Your task to perform on an android device: toggle data saver in the chrome app Image 0: 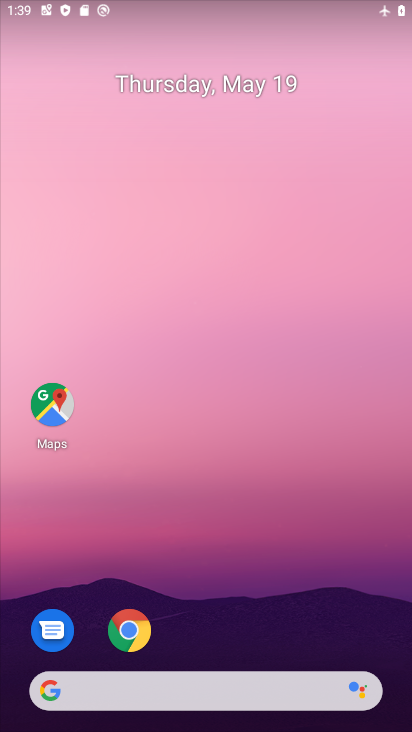
Step 0: drag from (216, 687) to (146, 149)
Your task to perform on an android device: toggle data saver in the chrome app Image 1: 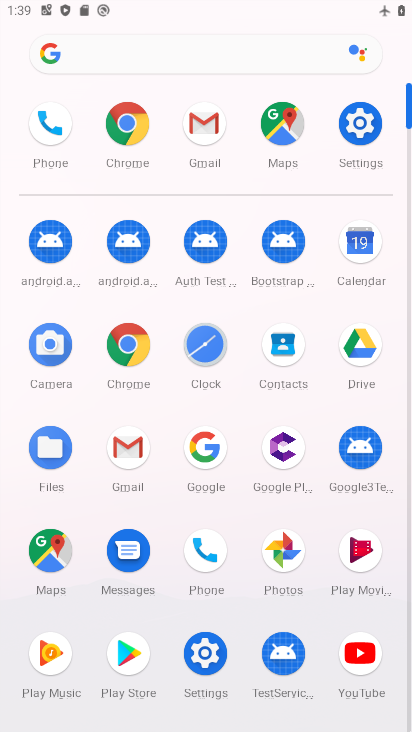
Step 1: click (133, 354)
Your task to perform on an android device: toggle data saver in the chrome app Image 2: 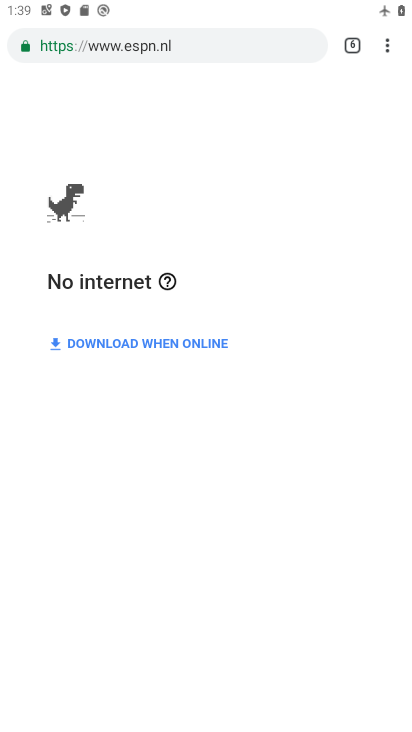
Step 2: click (384, 43)
Your task to perform on an android device: toggle data saver in the chrome app Image 3: 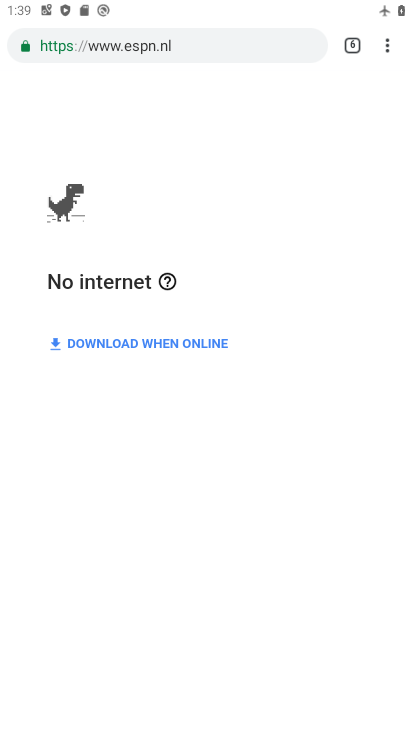
Step 3: drag from (390, 43) to (216, 509)
Your task to perform on an android device: toggle data saver in the chrome app Image 4: 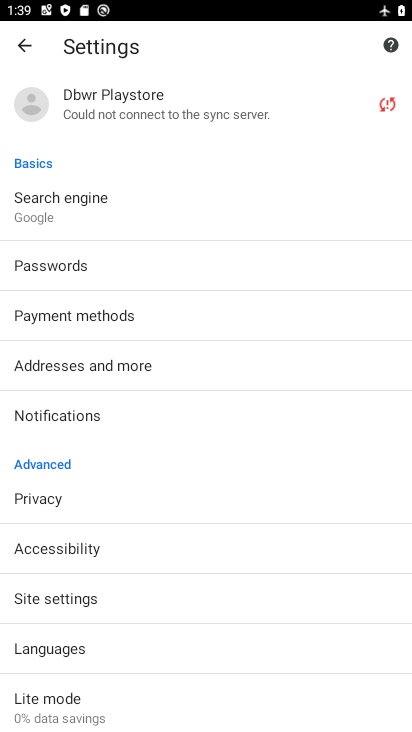
Step 4: click (71, 682)
Your task to perform on an android device: toggle data saver in the chrome app Image 5: 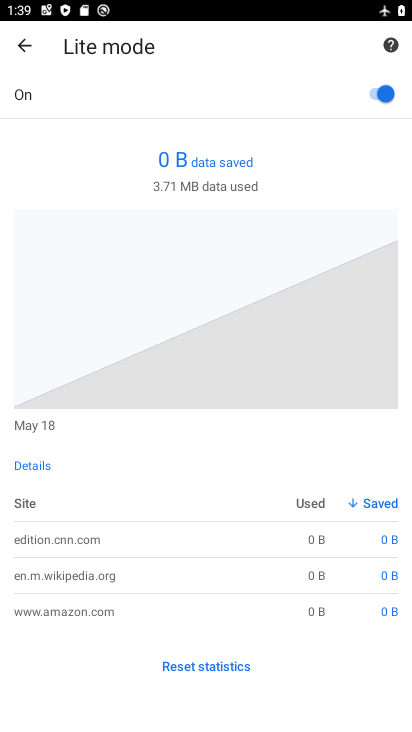
Step 5: click (388, 104)
Your task to perform on an android device: toggle data saver in the chrome app Image 6: 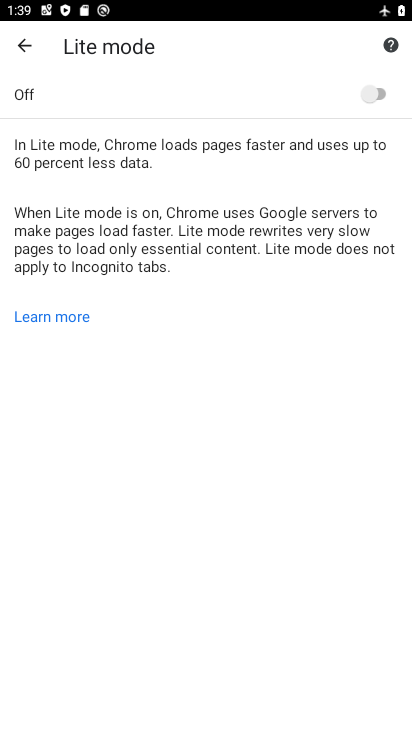
Step 6: task complete